Your task to perform on an android device: turn vacation reply on in the gmail app Image 0: 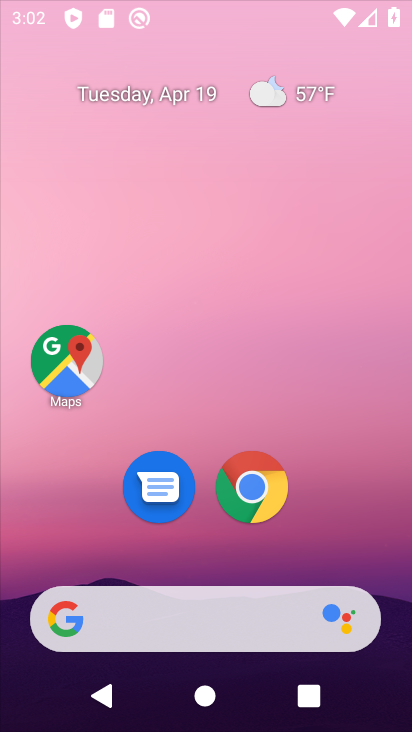
Step 0: drag from (328, 242) to (300, 60)
Your task to perform on an android device: turn vacation reply on in the gmail app Image 1: 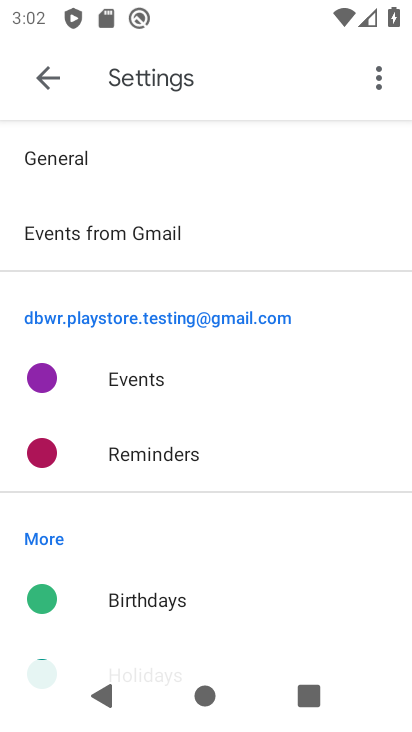
Step 1: press home button
Your task to perform on an android device: turn vacation reply on in the gmail app Image 2: 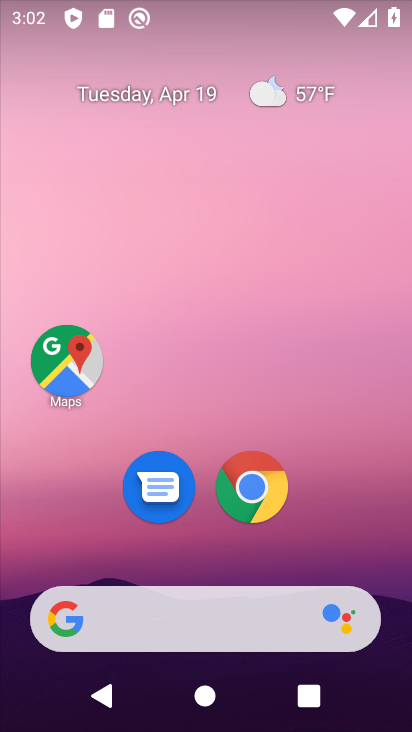
Step 2: drag from (358, 507) to (297, 130)
Your task to perform on an android device: turn vacation reply on in the gmail app Image 3: 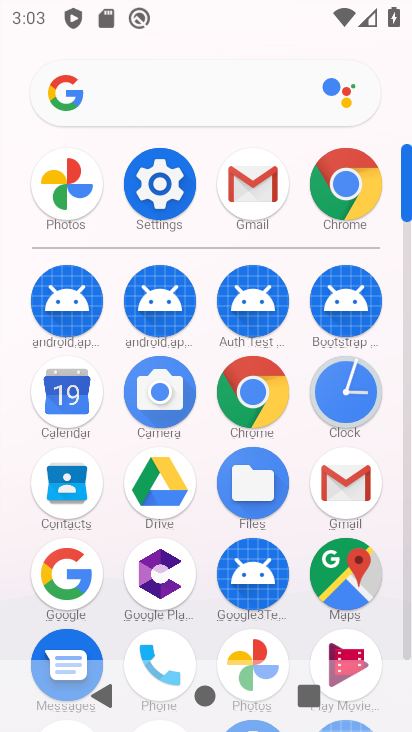
Step 3: click (336, 499)
Your task to perform on an android device: turn vacation reply on in the gmail app Image 4: 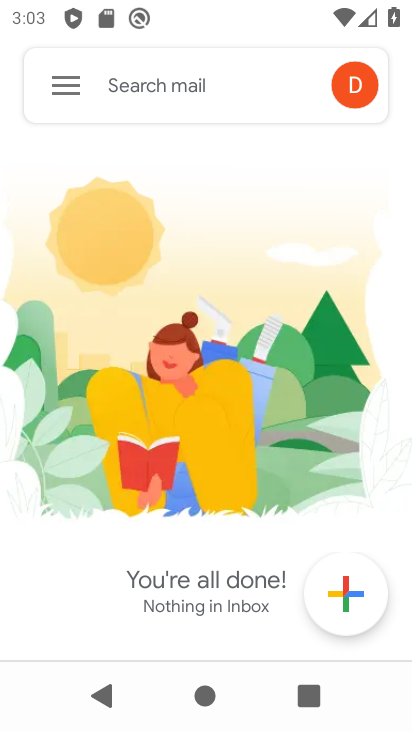
Step 4: click (69, 81)
Your task to perform on an android device: turn vacation reply on in the gmail app Image 5: 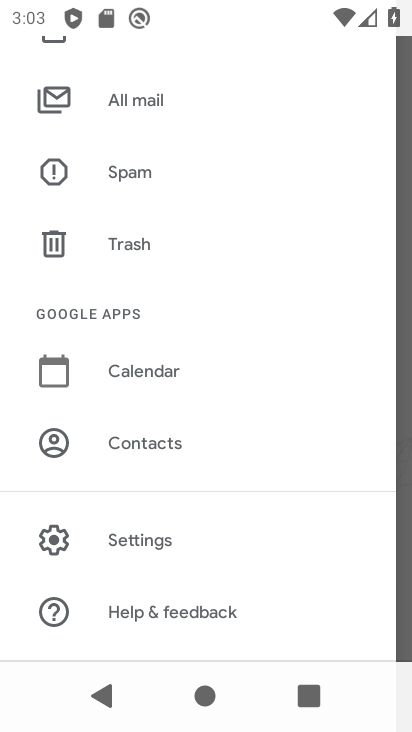
Step 5: click (166, 540)
Your task to perform on an android device: turn vacation reply on in the gmail app Image 6: 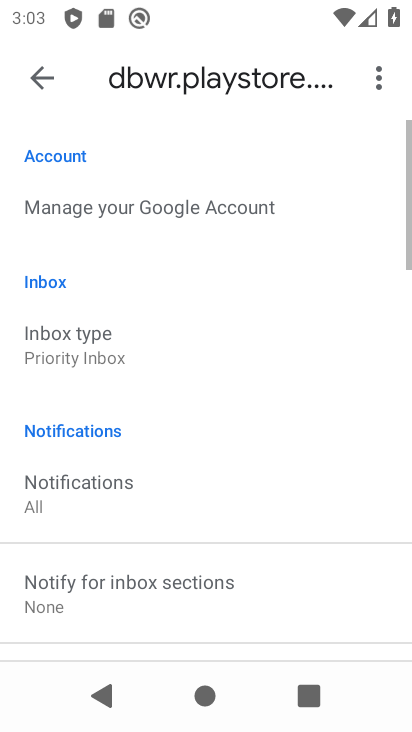
Step 6: task complete